Your task to perform on an android device: delete the emails in spam in the gmail app Image 0: 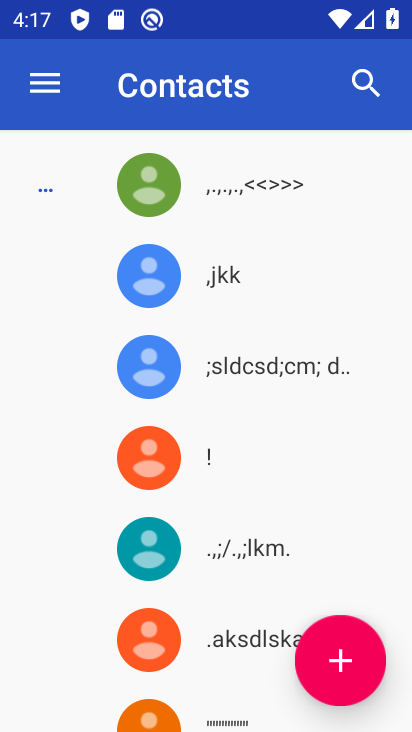
Step 0: press home button
Your task to perform on an android device: delete the emails in spam in the gmail app Image 1: 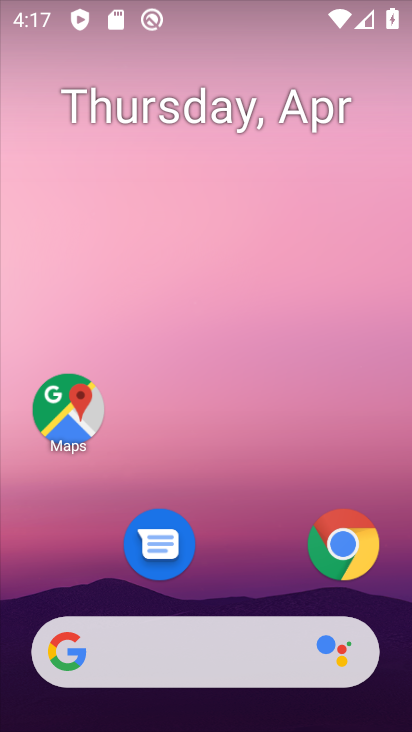
Step 1: drag from (237, 638) to (247, 168)
Your task to perform on an android device: delete the emails in spam in the gmail app Image 2: 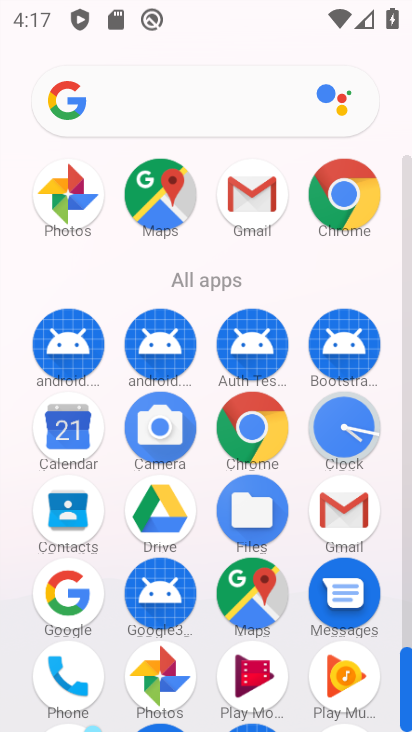
Step 2: drag from (308, 558) to (343, 250)
Your task to perform on an android device: delete the emails in spam in the gmail app Image 3: 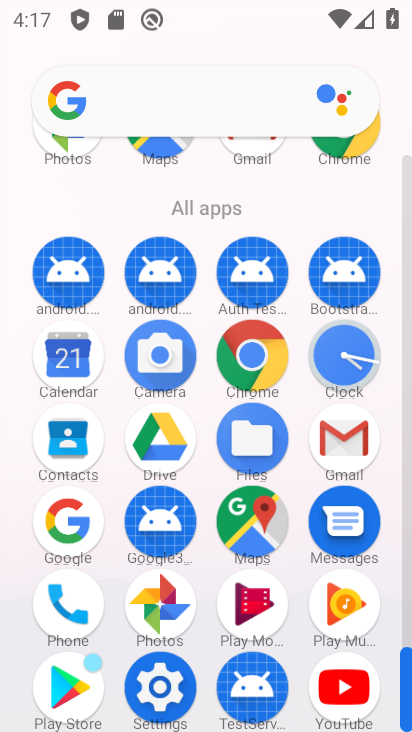
Step 3: click (332, 440)
Your task to perform on an android device: delete the emails in spam in the gmail app Image 4: 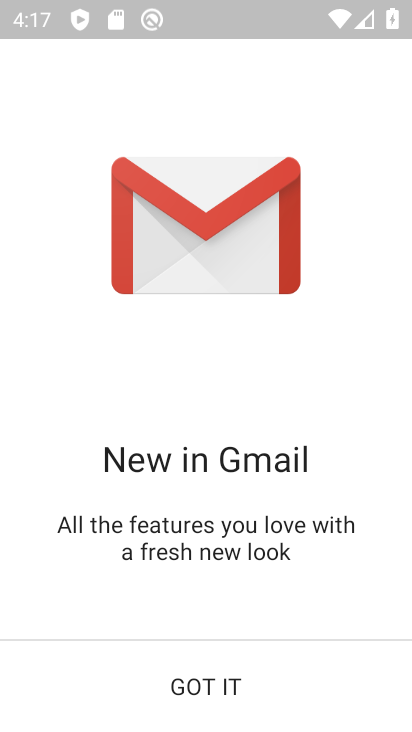
Step 4: click (269, 684)
Your task to perform on an android device: delete the emails in spam in the gmail app Image 5: 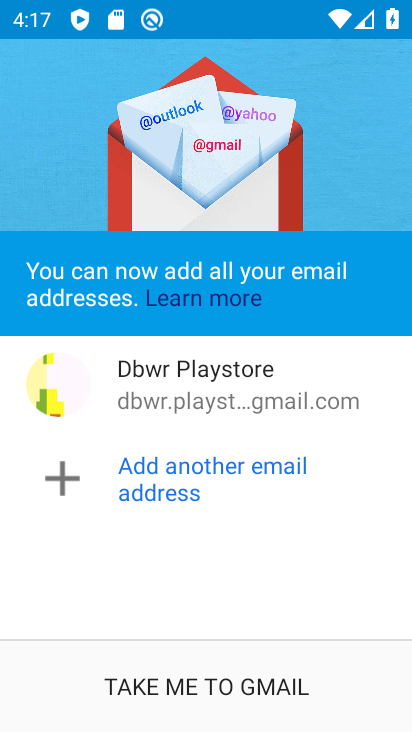
Step 5: click (207, 687)
Your task to perform on an android device: delete the emails in spam in the gmail app Image 6: 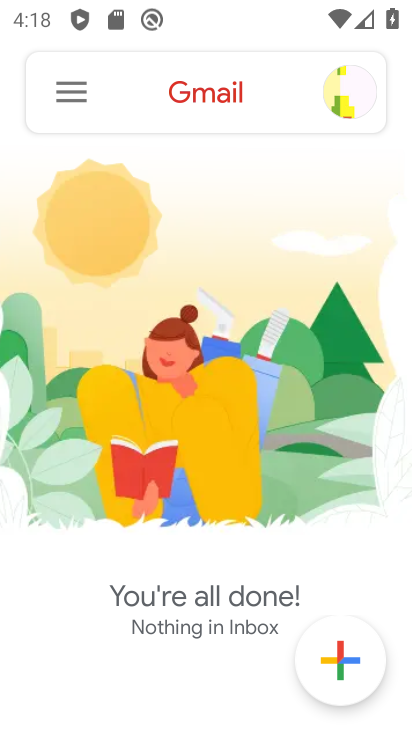
Step 6: click (84, 96)
Your task to perform on an android device: delete the emails in spam in the gmail app Image 7: 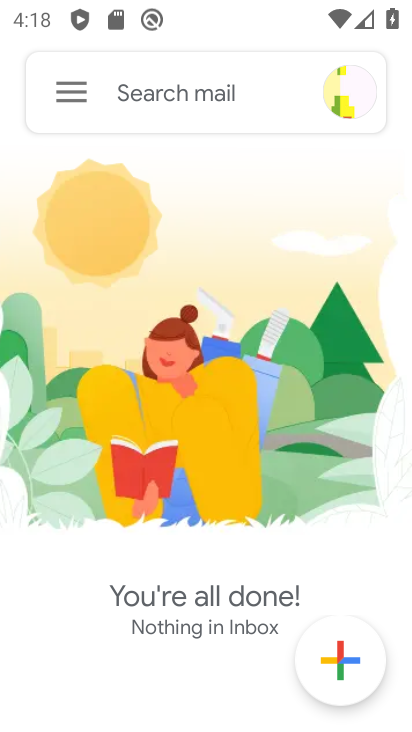
Step 7: click (53, 88)
Your task to perform on an android device: delete the emails in spam in the gmail app Image 8: 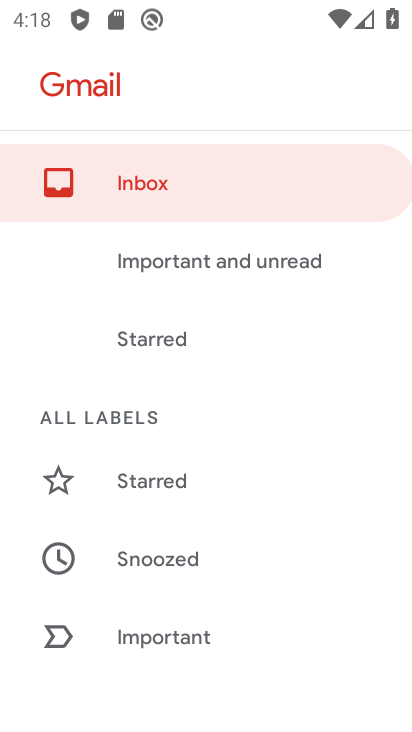
Step 8: task complete